Your task to perform on an android device: snooze an email in the gmail app Image 0: 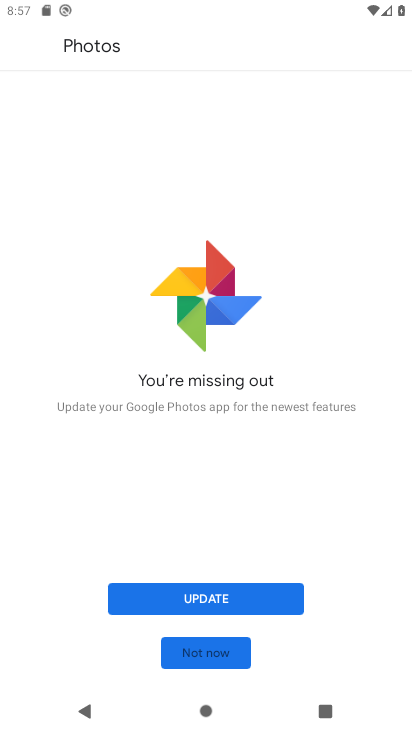
Step 0: press home button
Your task to perform on an android device: snooze an email in the gmail app Image 1: 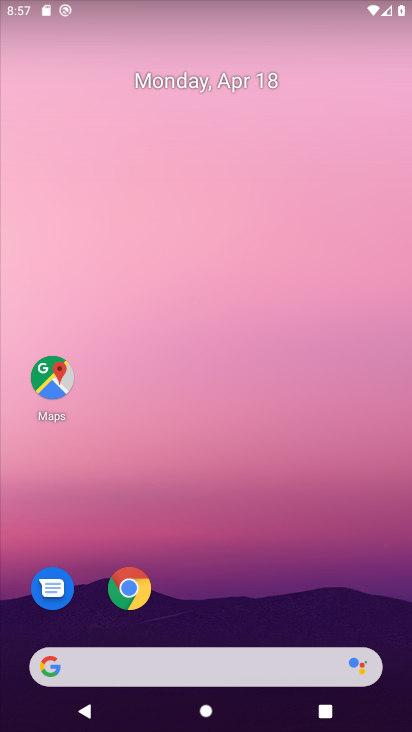
Step 1: drag from (278, 562) to (177, 95)
Your task to perform on an android device: snooze an email in the gmail app Image 2: 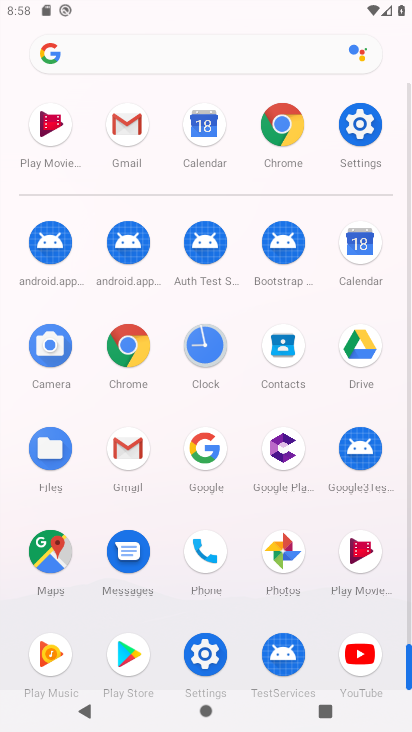
Step 2: click (129, 449)
Your task to perform on an android device: snooze an email in the gmail app Image 3: 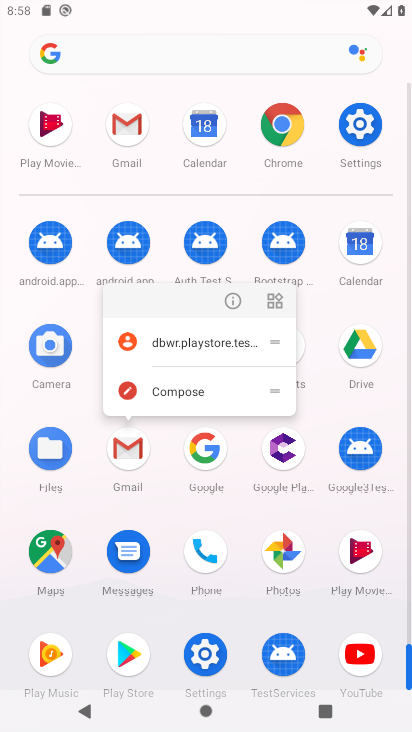
Step 3: click (129, 449)
Your task to perform on an android device: snooze an email in the gmail app Image 4: 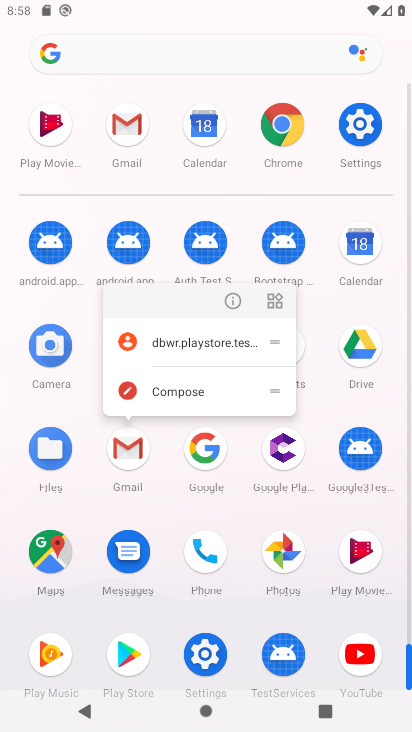
Step 4: click (129, 449)
Your task to perform on an android device: snooze an email in the gmail app Image 5: 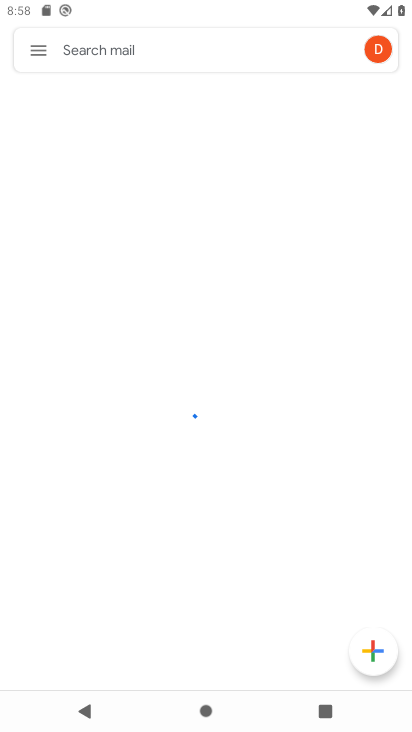
Step 5: click (34, 50)
Your task to perform on an android device: snooze an email in the gmail app Image 6: 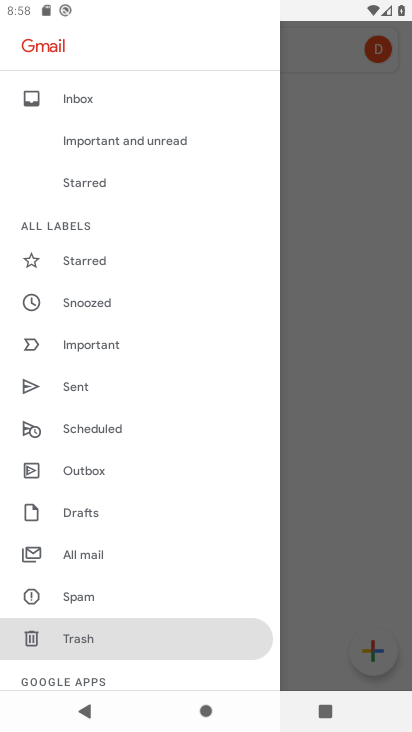
Step 6: click (104, 95)
Your task to perform on an android device: snooze an email in the gmail app Image 7: 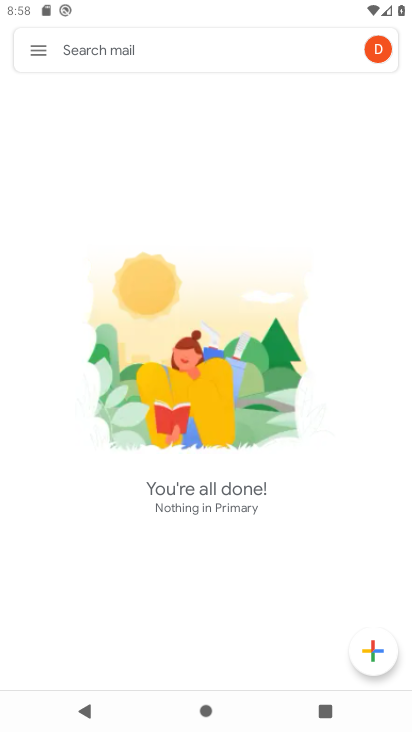
Step 7: task complete